Your task to perform on an android device: turn on improve location accuracy Image 0: 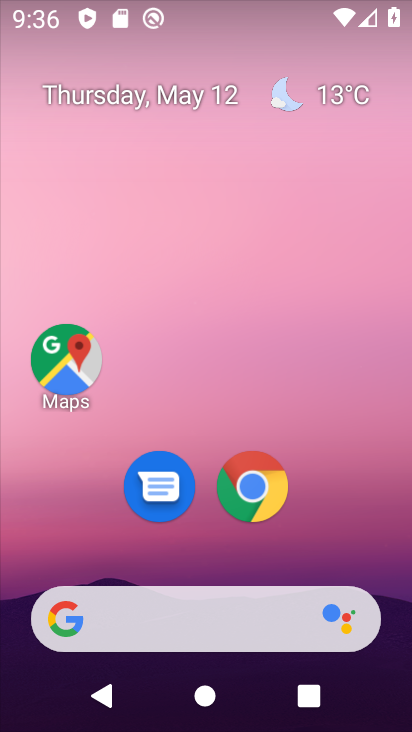
Step 0: drag from (370, 530) to (298, 92)
Your task to perform on an android device: turn on improve location accuracy Image 1: 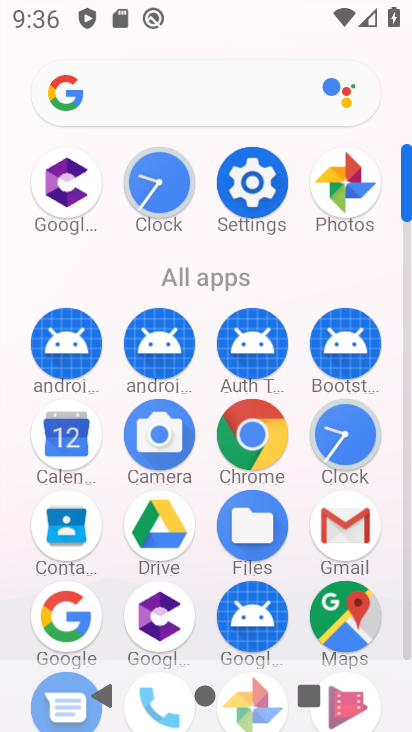
Step 1: click (258, 165)
Your task to perform on an android device: turn on improve location accuracy Image 2: 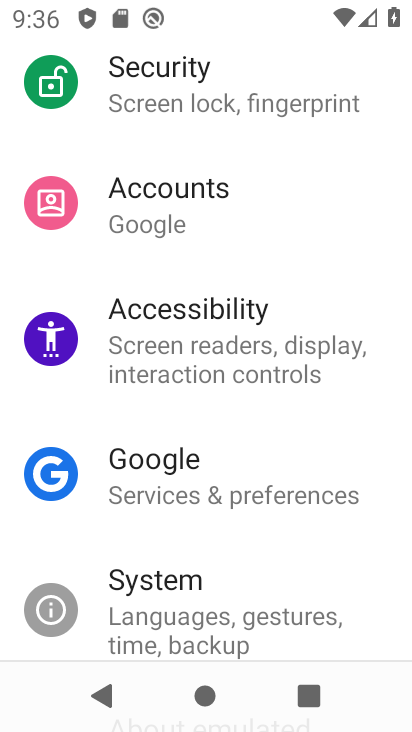
Step 2: drag from (317, 524) to (276, 275)
Your task to perform on an android device: turn on improve location accuracy Image 3: 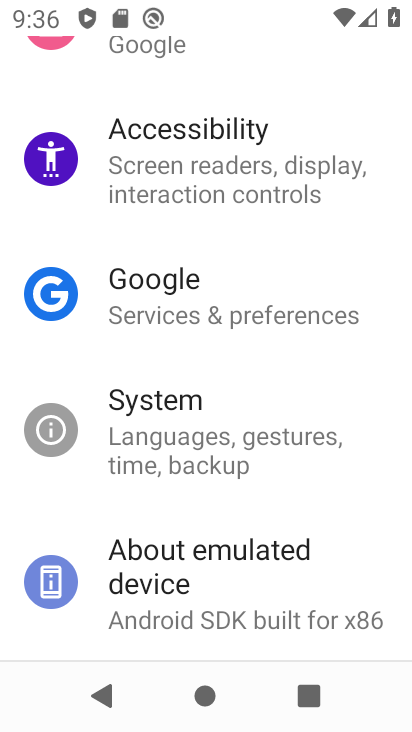
Step 3: drag from (265, 577) to (234, 310)
Your task to perform on an android device: turn on improve location accuracy Image 4: 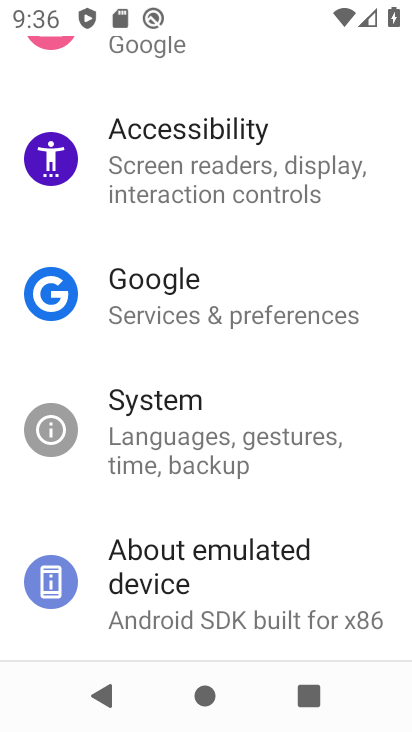
Step 4: drag from (220, 198) to (197, 656)
Your task to perform on an android device: turn on improve location accuracy Image 5: 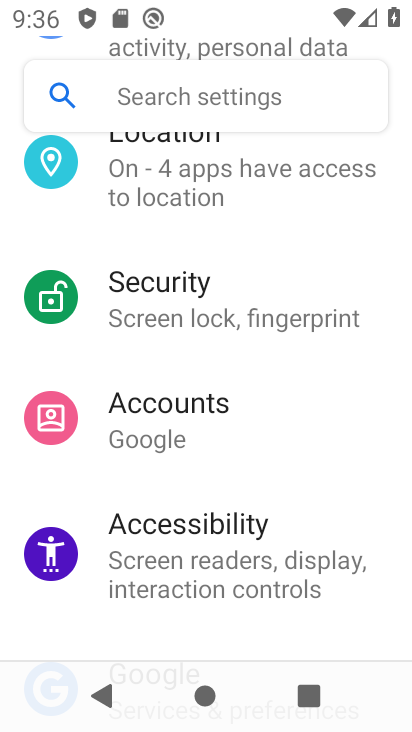
Step 5: click (165, 195)
Your task to perform on an android device: turn on improve location accuracy Image 6: 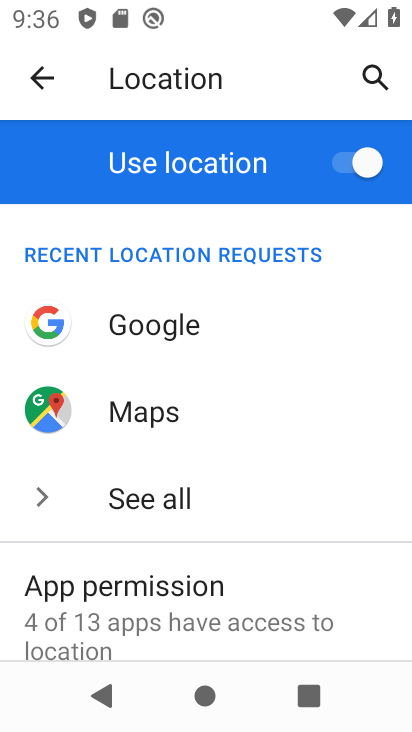
Step 6: drag from (313, 579) to (257, 146)
Your task to perform on an android device: turn on improve location accuracy Image 7: 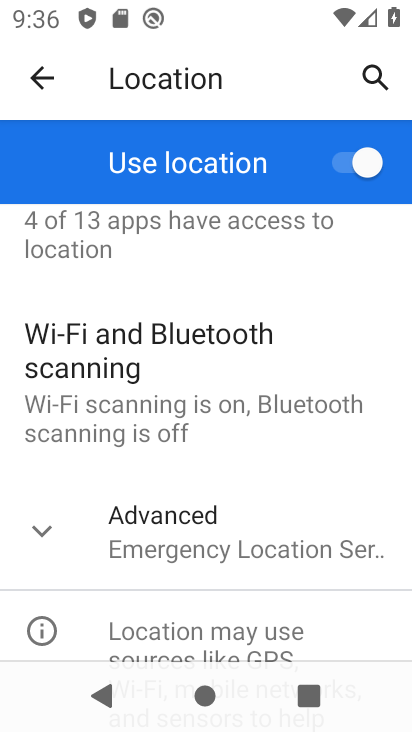
Step 7: click (144, 523)
Your task to perform on an android device: turn on improve location accuracy Image 8: 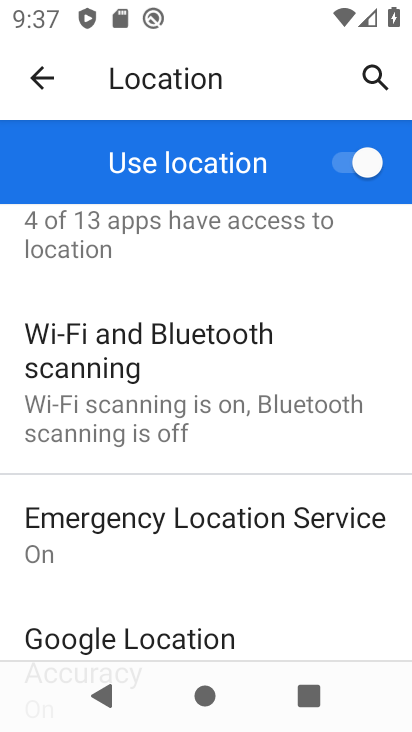
Step 8: drag from (295, 541) to (228, 205)
Your task to perform on an android device: turn on improve location accuracy Image 9: 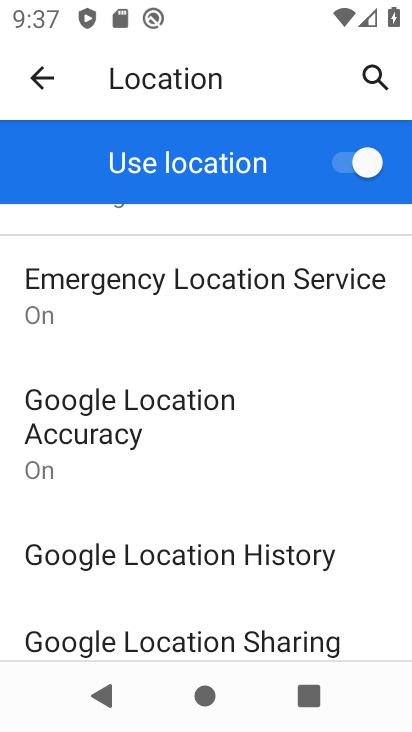
Step 9: click (145, 398)
Your task to perform on an android device: turn on improve location accuracy Image 10: 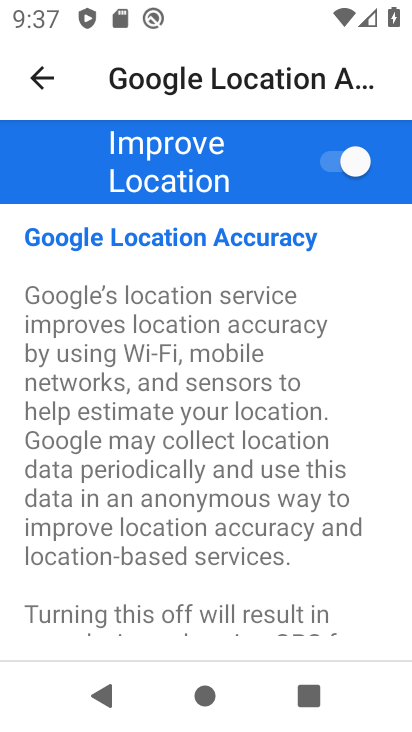
Step 10: task complete